Your task to perform on an android device: toggle notification dots Image 0: 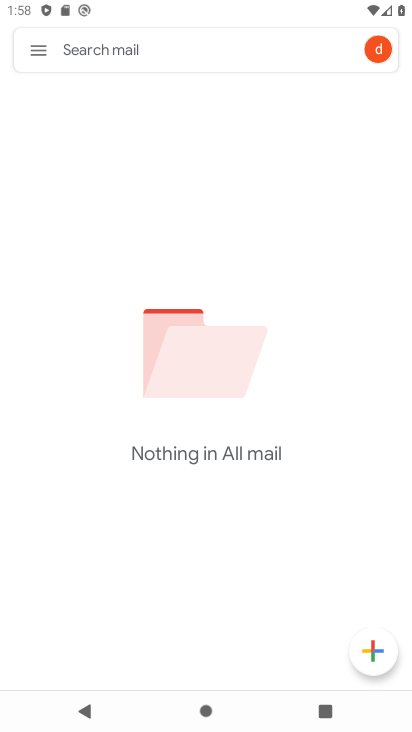
Step 0: press home button
Your task to perform on an android device: toggle notification dots Image 1: 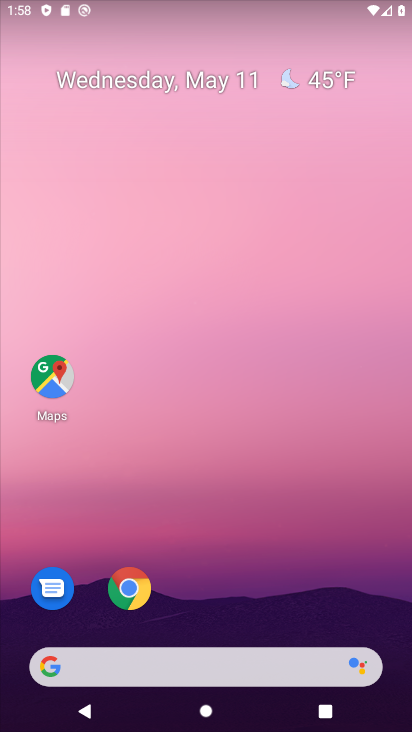
Step 1: drag from (209, 604) to (174, 123)
Your task to perform on an android device: toggle notification dots Image 2: 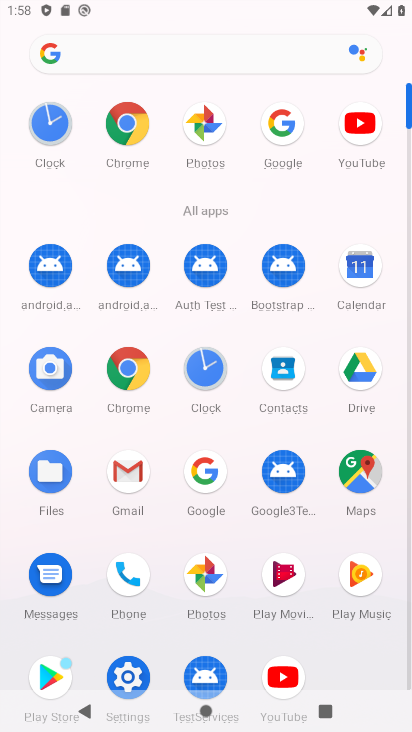
Step 2: click (127, 660)
Your task to perform on an android device: toggle notification dots Image 3: 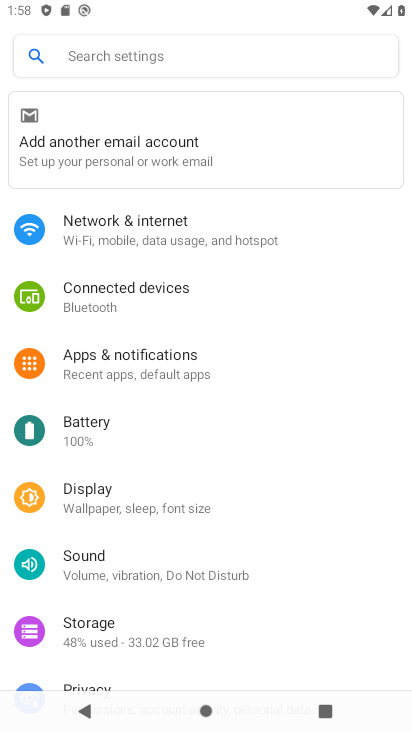
Step 3: click (174, 361)
Your task to perform on an android device: toggle notification dots Image 4: 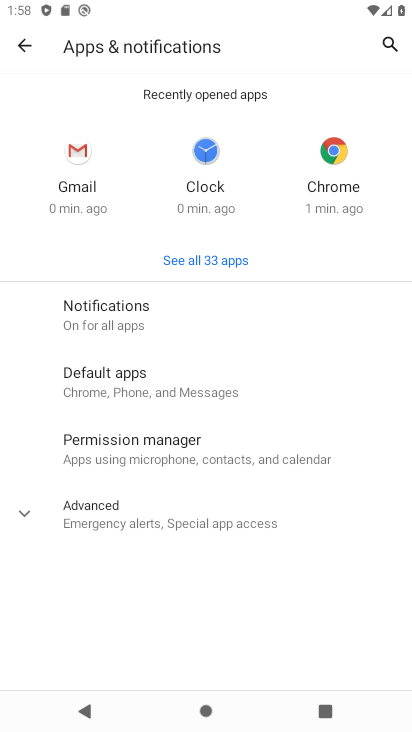
Step 4: click (153, 309)
Your task to perform on an android device: toggle notification dots Image 5: 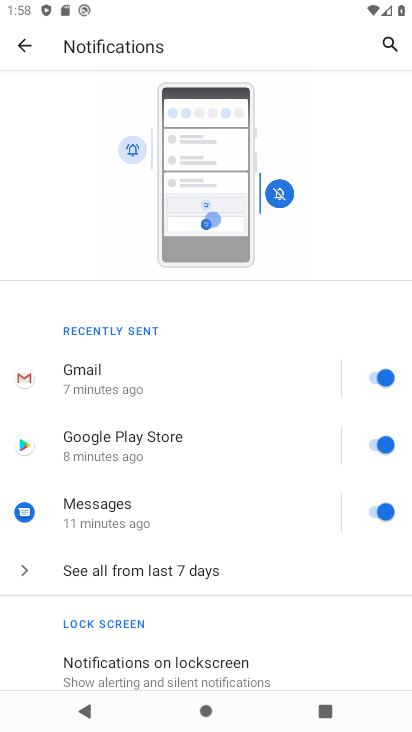
Step 5: drag from (205, 610) to (218, 382)
Your task to perform on an android device: toggle notification dots Image 6: 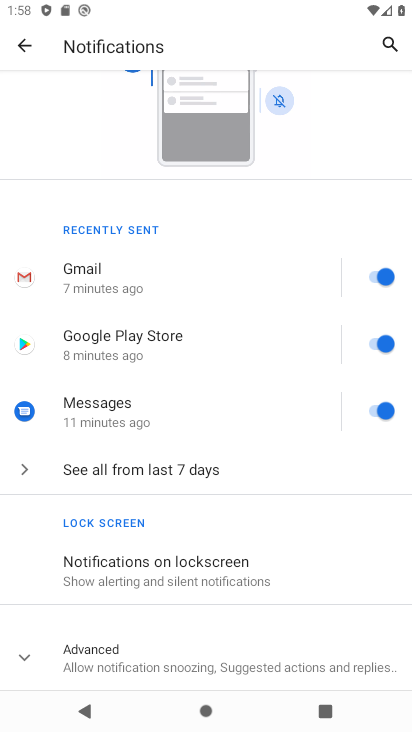
Step 6: drag from (214, 608) to (195, 424)
Your task to perform on an android device: toggle notification dots Image 7: 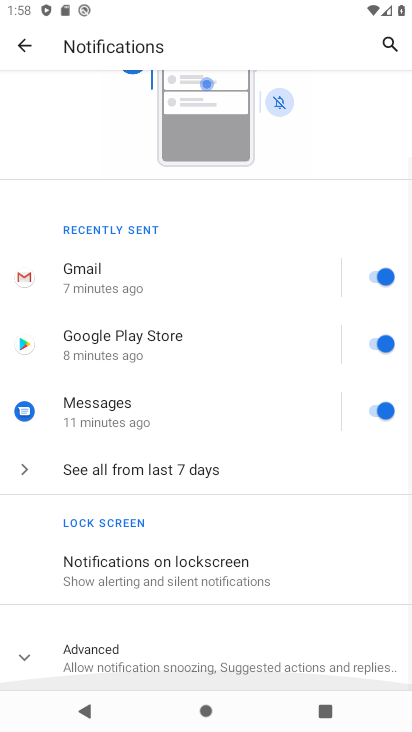
Step 7: click (214, 658)
Your task to perform on an android device: toggle notification dots Image 8: 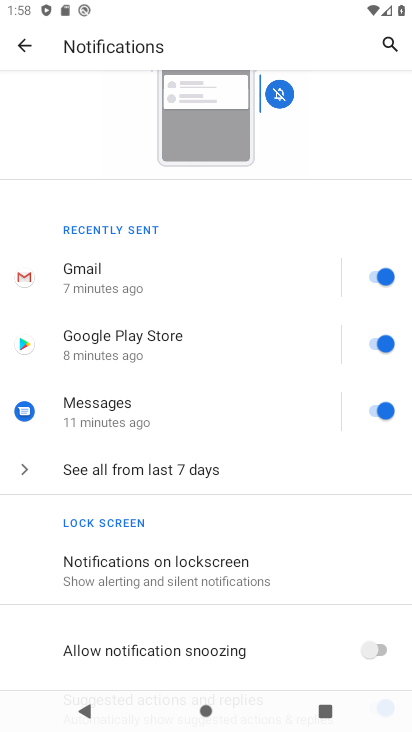
Step 8: drag from (185, 638) to (164, 407)
Your task to perform on an android device: toggle notification dots Image 9: 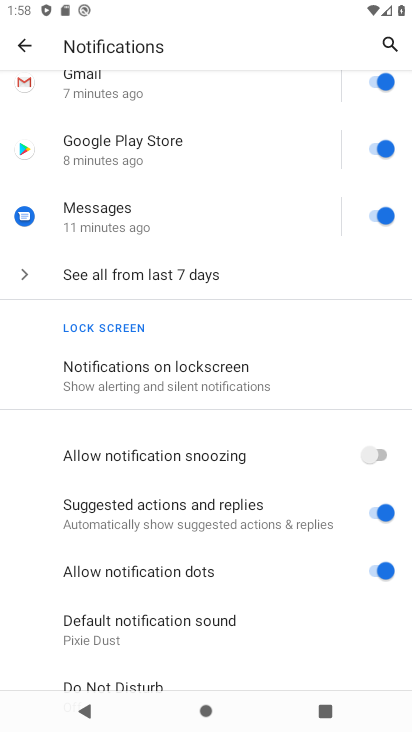
Step 9: click (368, 574)
Your task to perform on an android device: toggle notification dots Image 10: 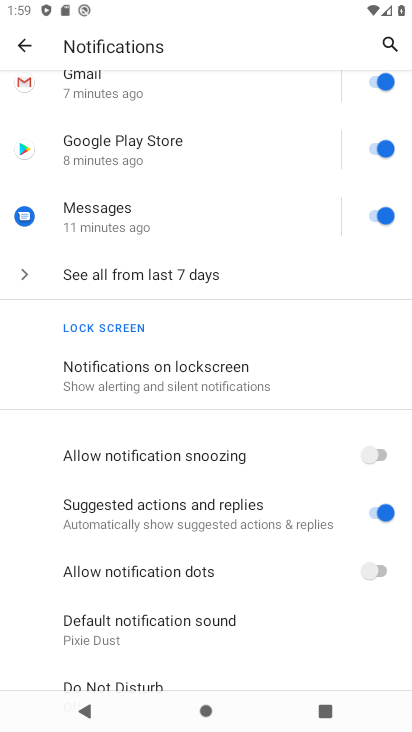
Step 10: task complete